Your task to perform on an android device: Open Maps and search for coffee Image 0: 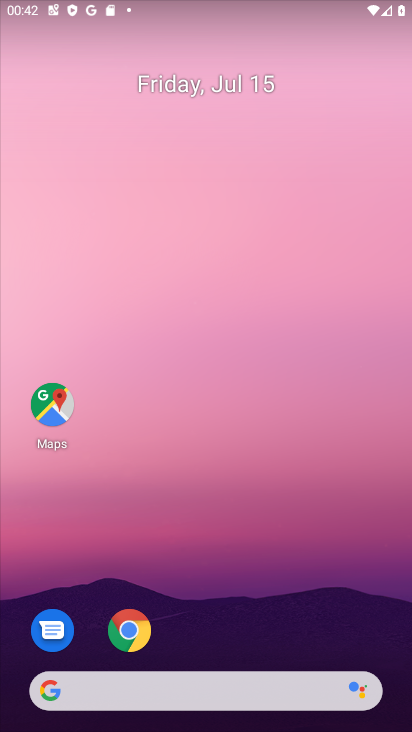
Step 0: click (32, 388)
Your task to perform on an android device: Open Maps and search for coffee Image 1: 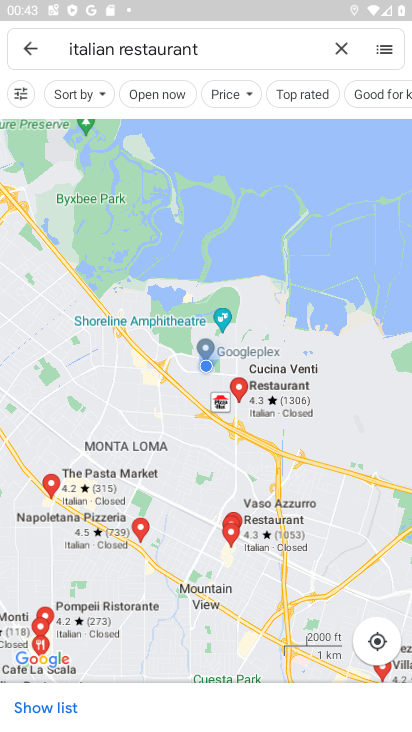
Step 1: click (330, 49)
Your task to perform on an android device: Open Maps and search for coffee Image 2: 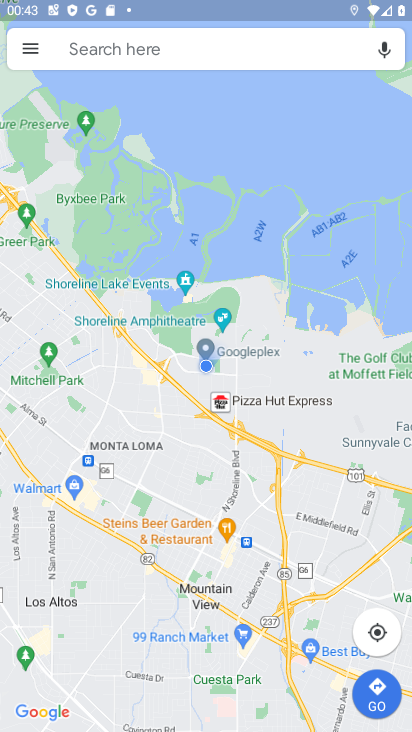
Step 2: click (203, 49)
Your task to perform on an android device: Open Maps and search for coffee Image 3: 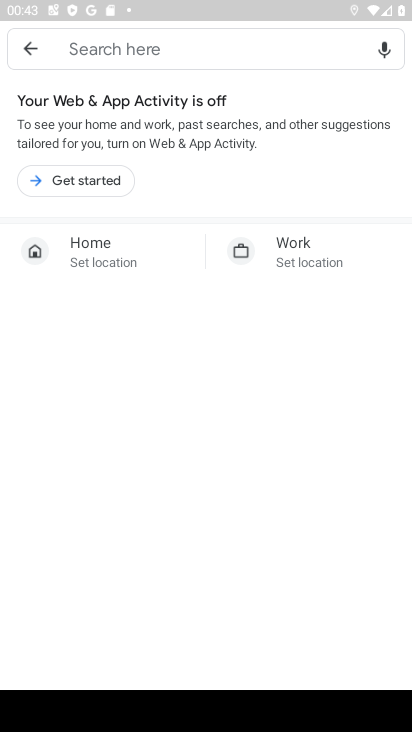
Step 3: type "coffee"
Your task to perform on an android device: Open Maps and search for coffee Image 4: 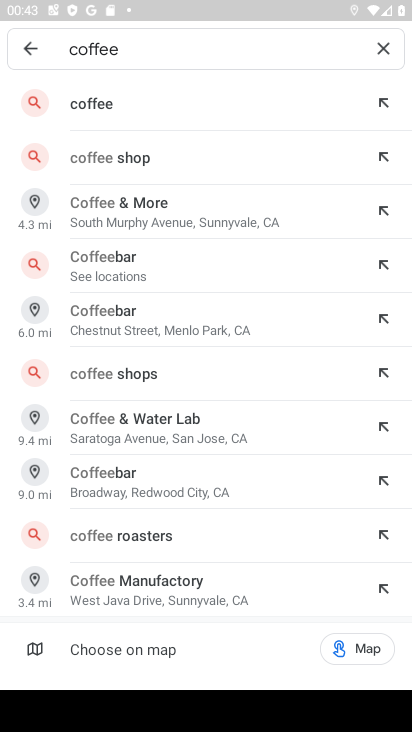
Step 4: click (103, 105)
Your task to perform on an android device: Open Maps and search for coffee Image 5: 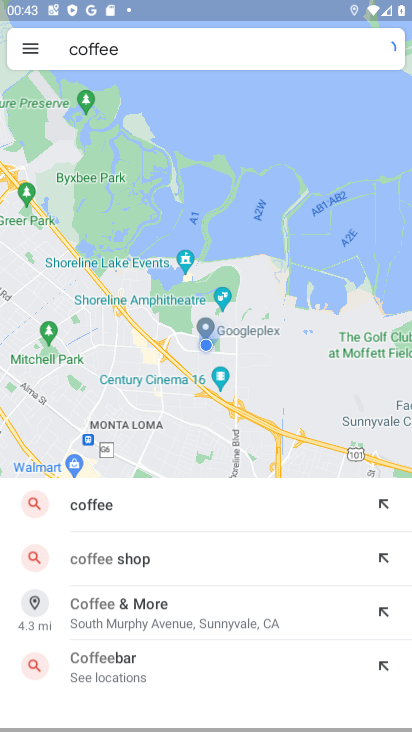
Step 5: task complete